Your task to perform on an android device: turn off data saver in the chrome app Image 0: 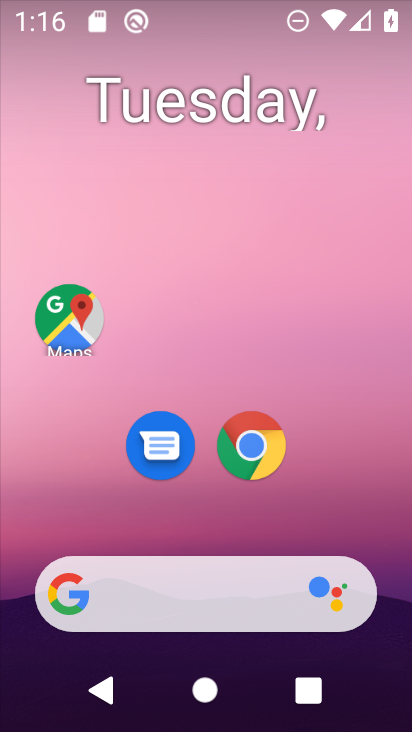
Step 0: drag from (290, 530) to (298, 177)
Your task to perform on an android device: turn off data saver in the chrome app Image 1: 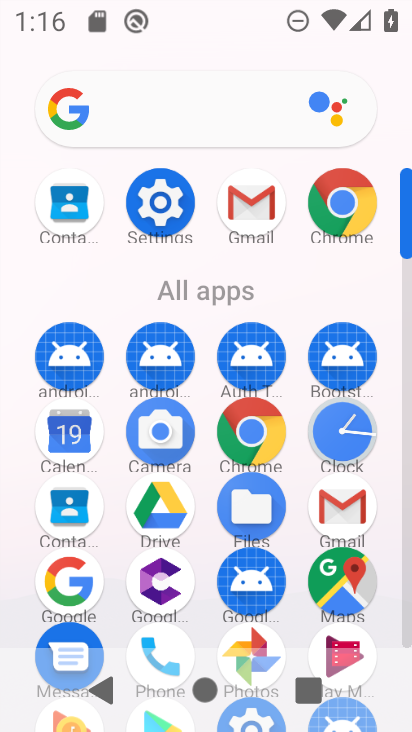
Step 1: click (345, 200)
Your task to perform on an android device: turn off data saver in the chrome app Image 2: 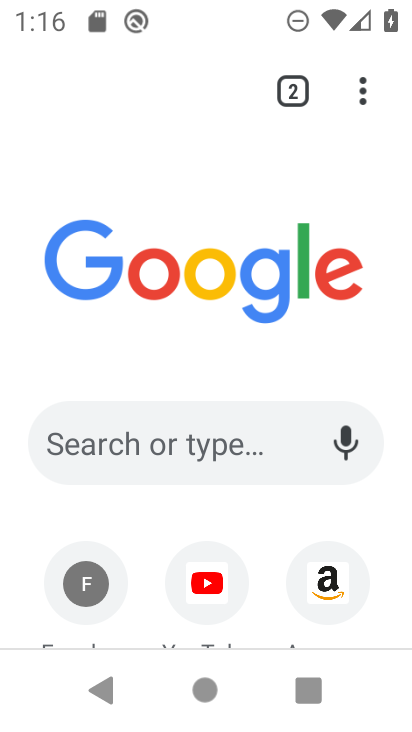
Step 2: click (362, 104)
Your task to perform on an android device: turn off data saver in the chrome app Image 3: 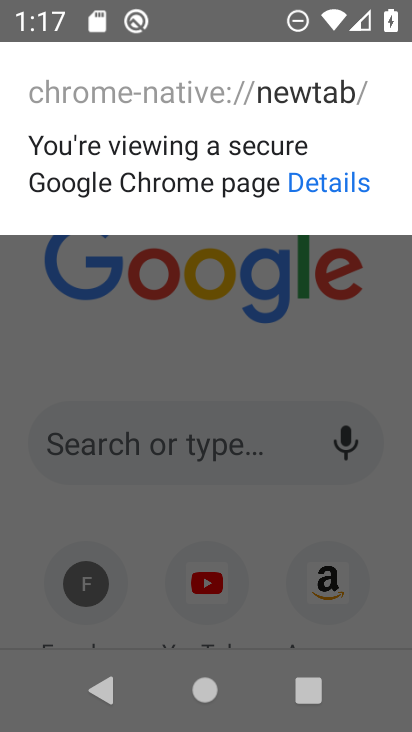
Step 3: click (329, 298)
Your task to perform on an android device: turn off data saver in the chrome app Image 4: 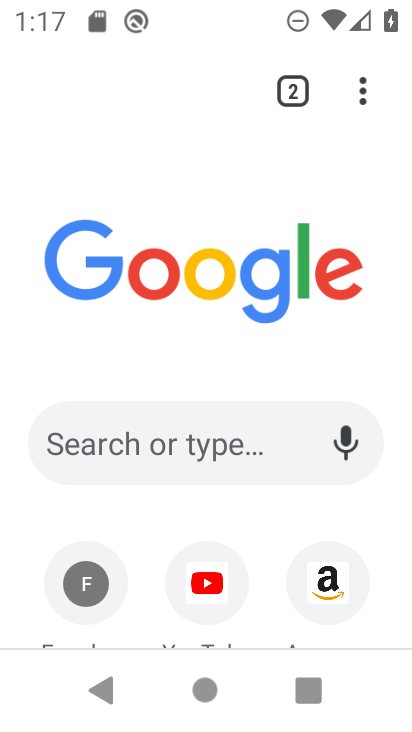
Step 4: click (363, 96)
Your task to perform on an android device: turn off data saver in the chrome app Image 5: 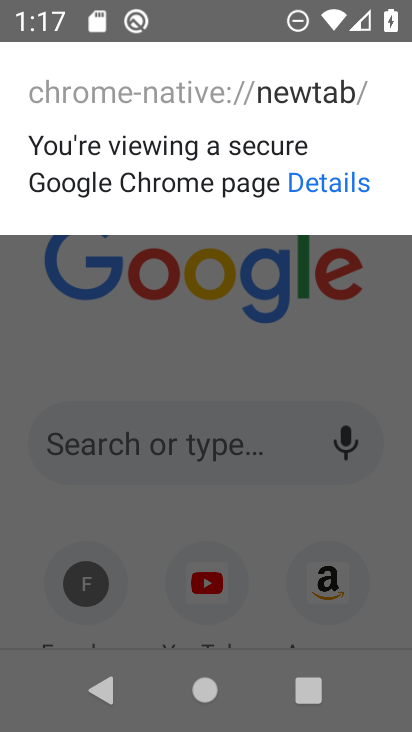
Step 5: click (339, 183)
Your task to perform on an android device: turn off data saver in the chrome app Image 6: 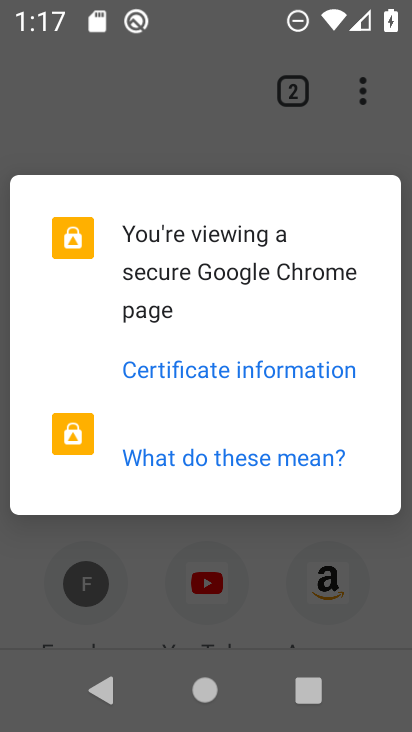
Step 6: click (251, 356)
Your task to perform on an android device: turn off data saver in the chrome app Image 7: 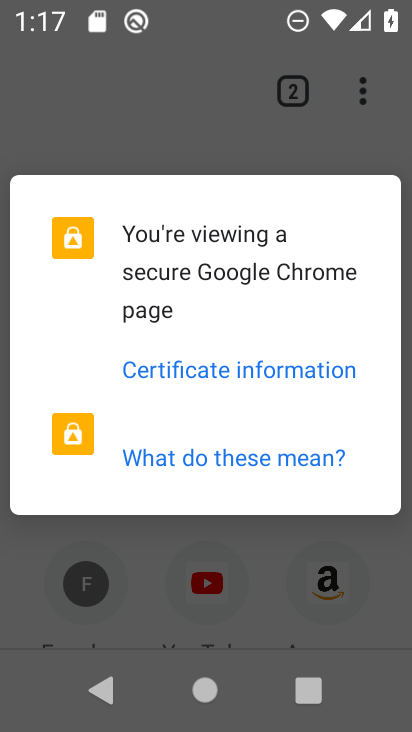
Step 7: click (253, 381)
Your task to perform on an android device: turn off data saver in the chrome app Image 8: 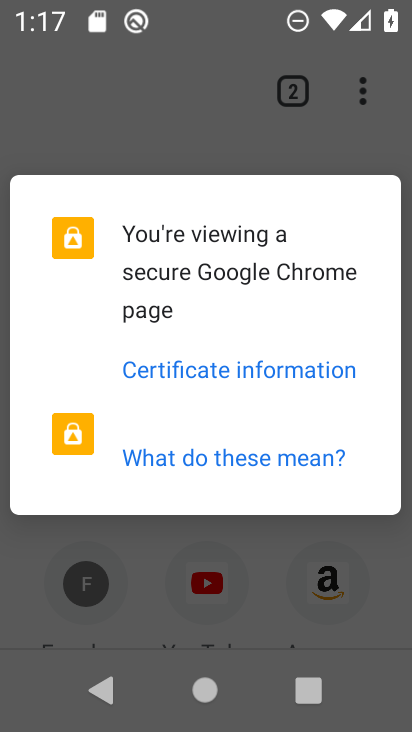
Step 8: click (273, 374)
Your task to perform on an android device: turn off data saver in the chrome app Image 9: 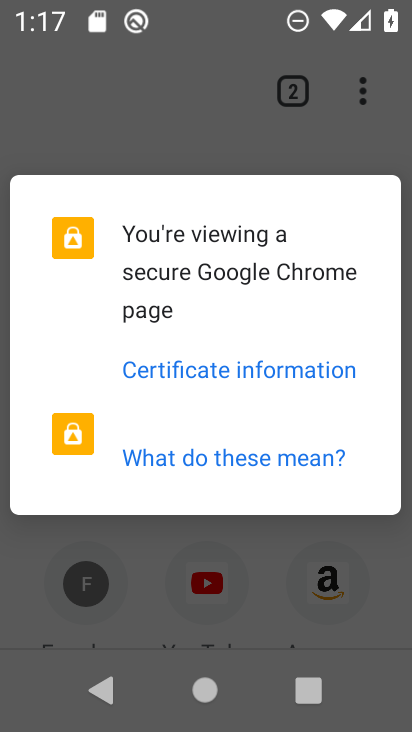
Step 9: click (274, 367)
Your task to perform on an android device: turn off data saver in the chrome app Image 10: 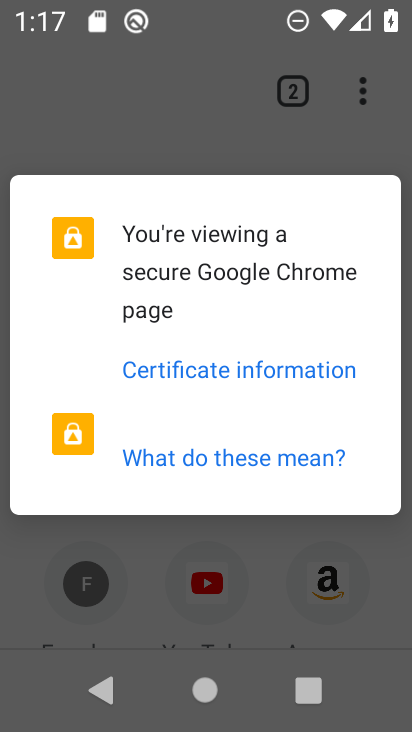
Step 10: click (247, 453)
Your task to perform on an android device: turn off data saver in the chrome app Image 11: 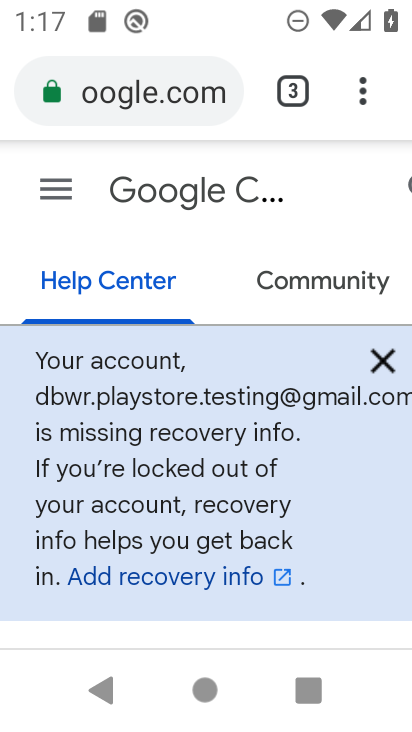
Step 11: click (374, 95)
Your task to perform on an android device: turn off data saver in the chrome app Image 12: 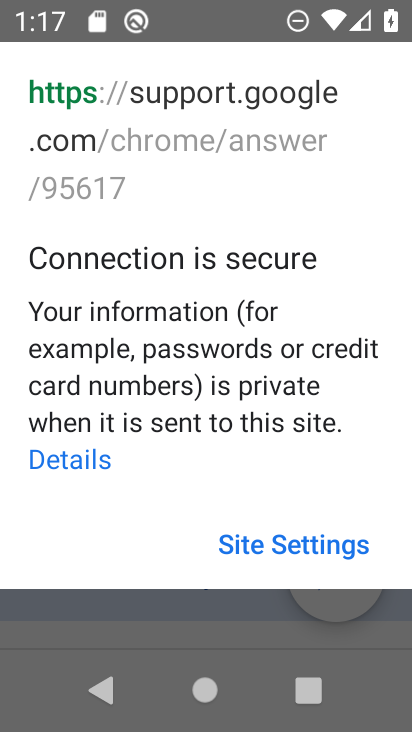
Step 12: task complete